Your task to perform on an android device: toggle wifi Image 0: 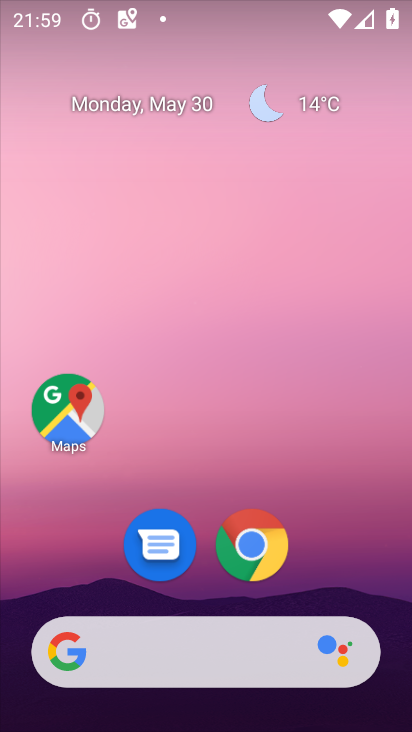
Step 0: drag from (326, 562) to (341, 91)
Your task to perform on an android device: toggle wifi Image 1: 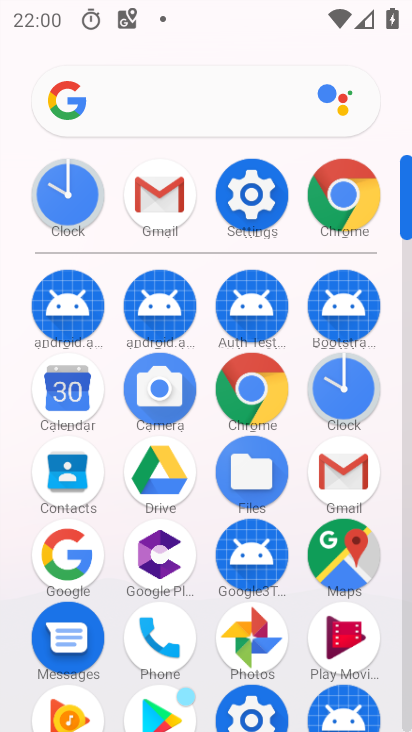
Step 1: click (252, 200)
Your task to perform on an android device: toggle wifi Image 2: 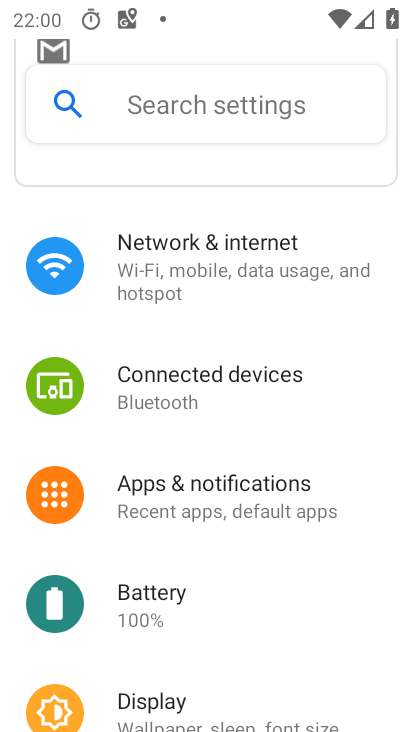
Step 2: click (218, 268)
Your task to perform on an android device: toggle wifi Image 3: 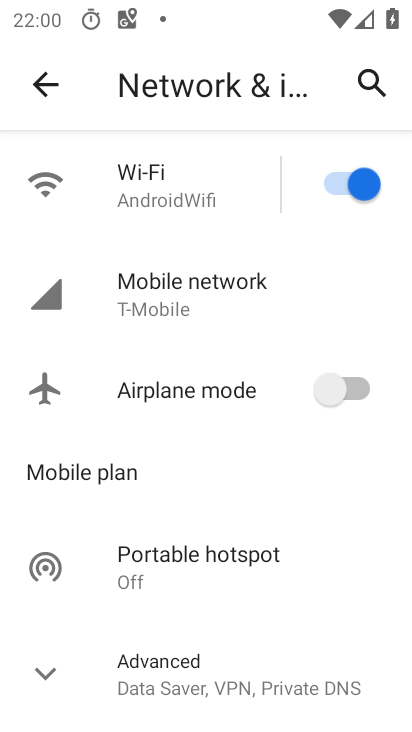
Step 3: click (332, 185)
Your task to perform on an android device: toggle wifi Image 4: 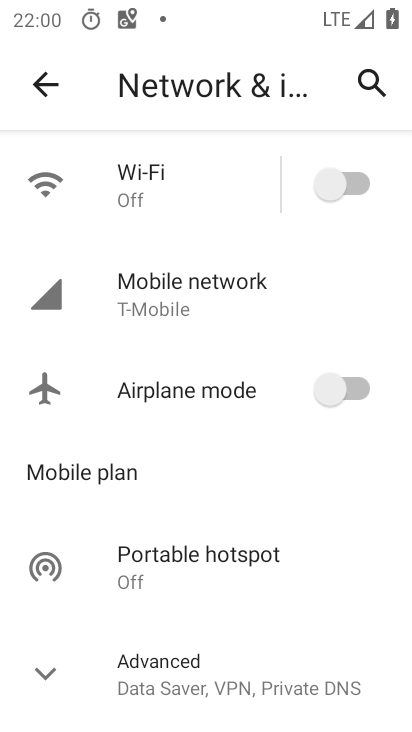
Step 4: task complete